Your task to perform on an android device: Show the shopping cart on amazon. Add "logitech g903" to the cart on amazon, then select checkout. Image 0: 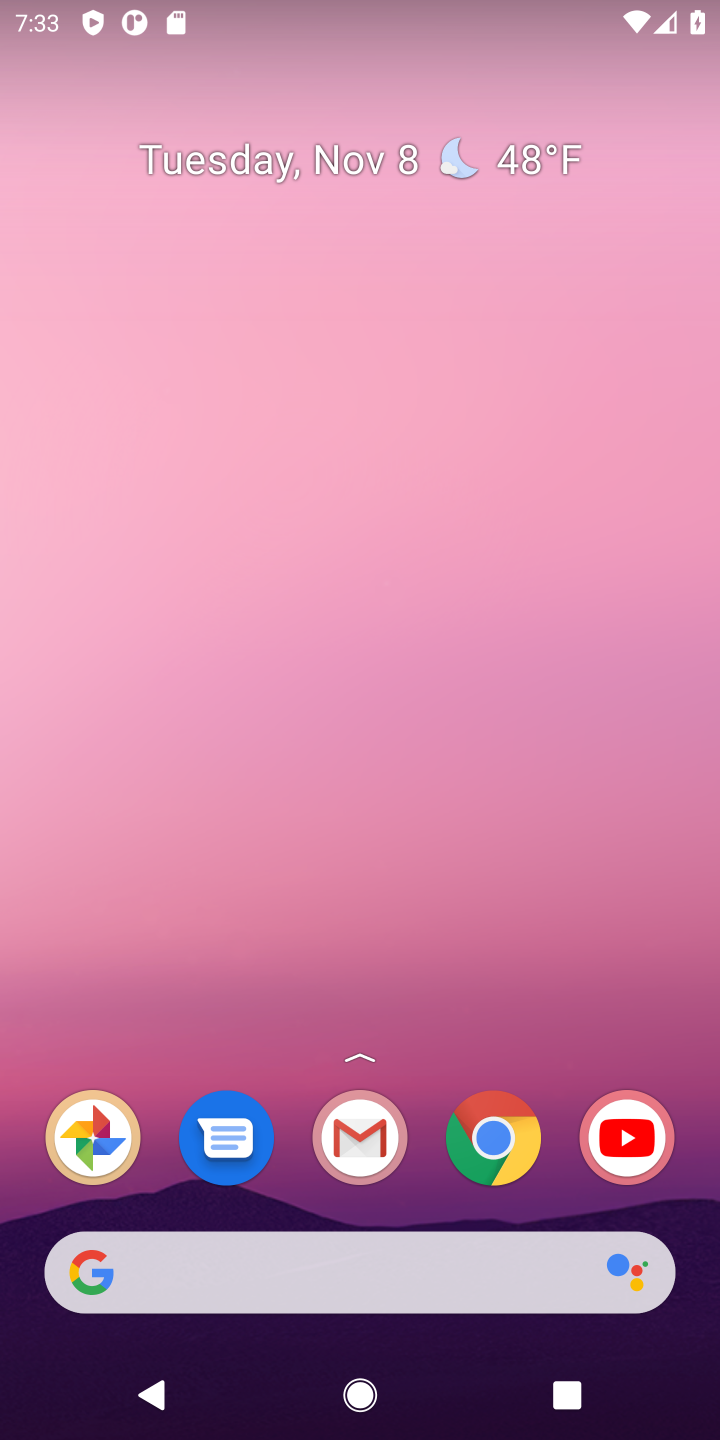
Step 0: click (502, 1151)
Your task to perform on an android device: Show the shopping cart on amazon. Add "logitech g903" to the cart on amazon, then select checkout. Image 1: 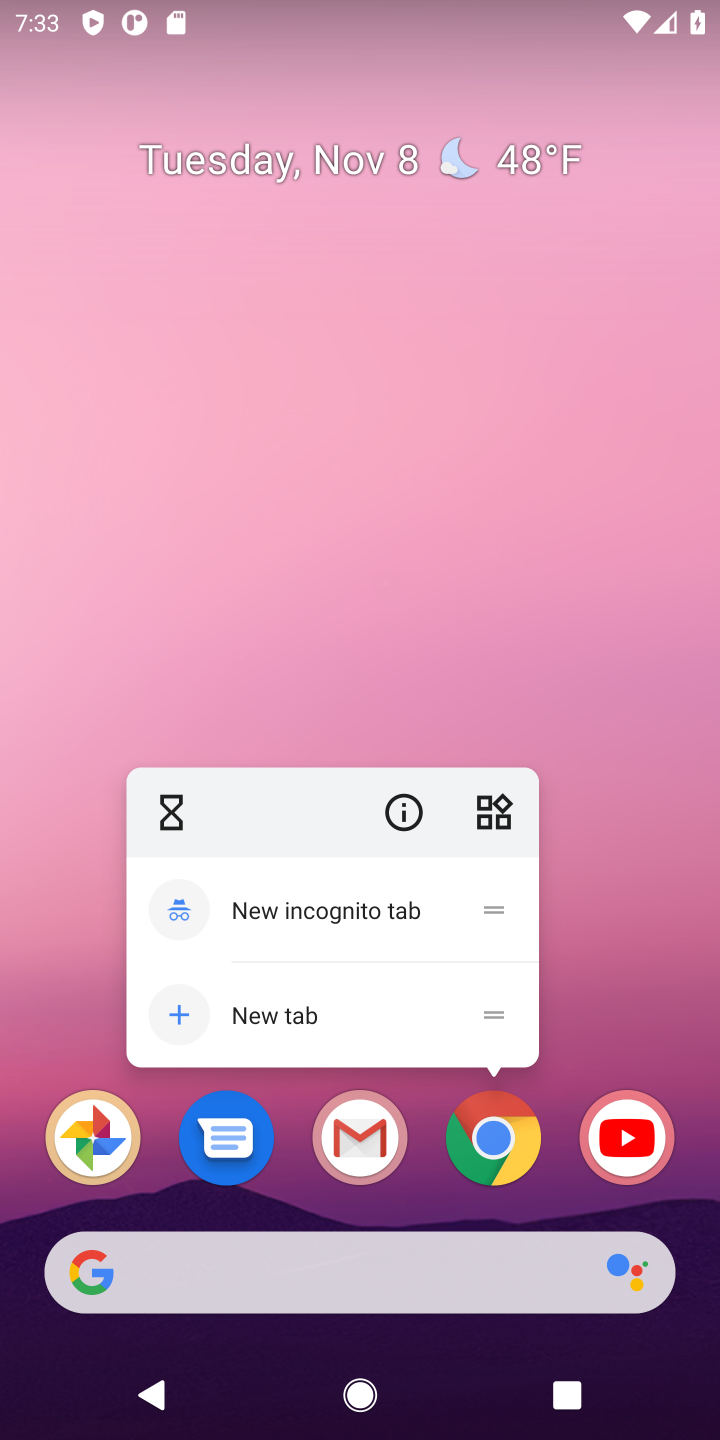
Step 1: click (500, 1136)
Your task to perform on an android device: Show the shopping cart on amazon. Add "logitech g903" to the cart on amazon, then select checkout. Image 2: 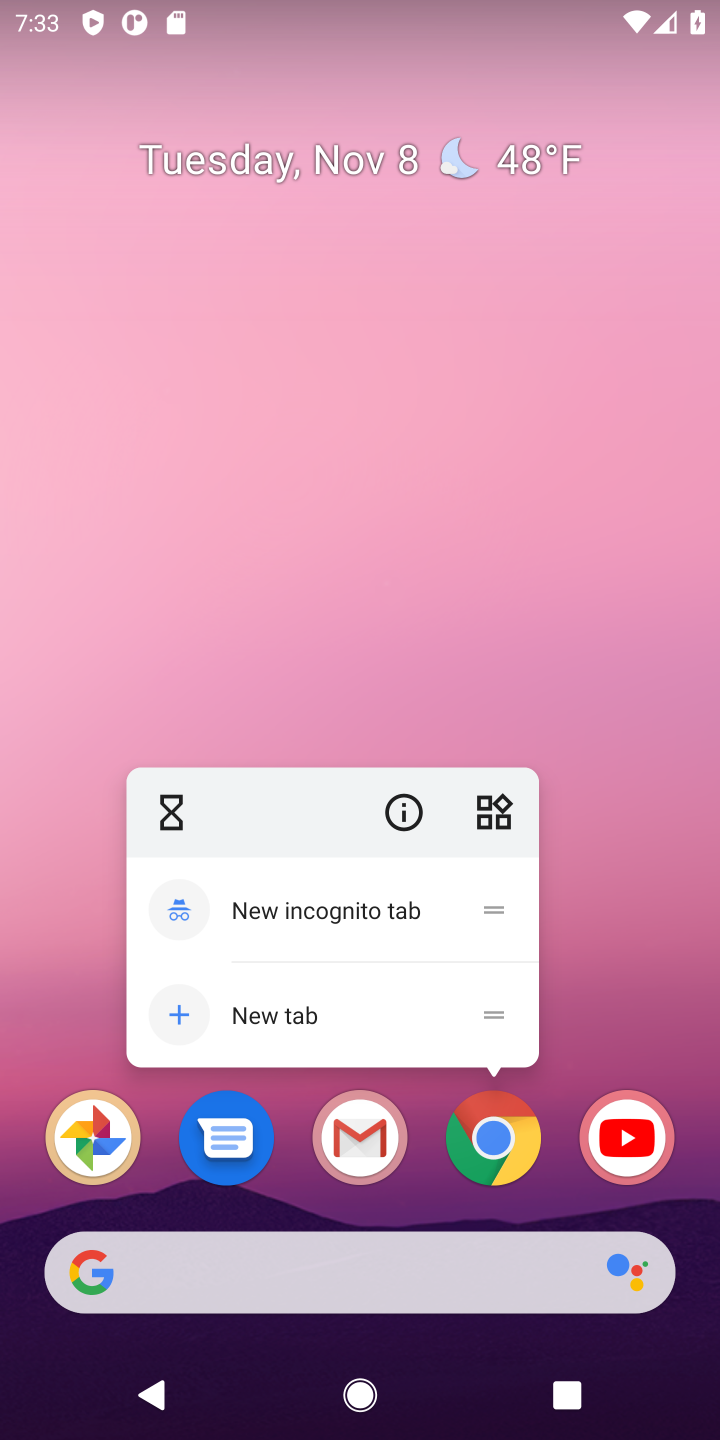
Step 2: click (477, 1141)
Your task to perform on an android device: Show the shopping cart on amazon. Add "logitech g903" to the cart on amazon, then select checkout. Image 3: 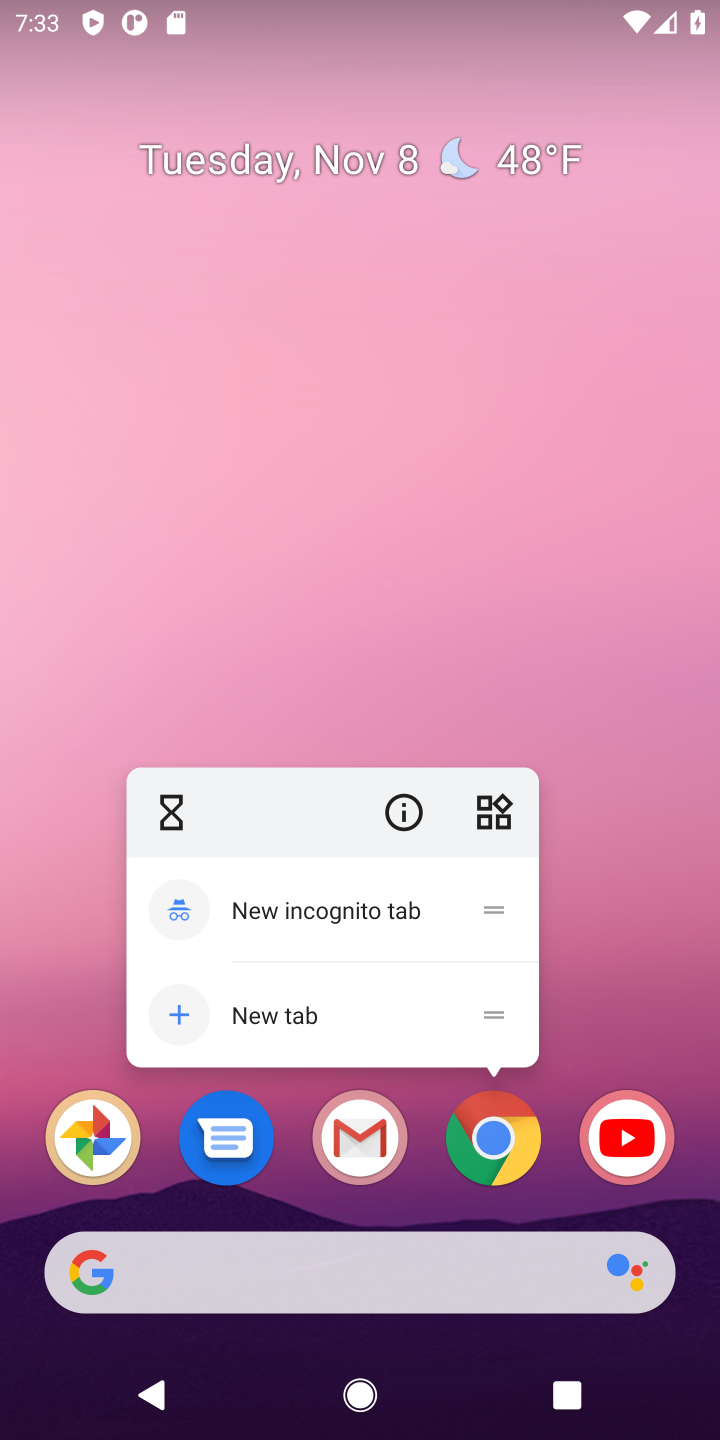
Step 3: click (495, 1141)
Your task to perform on an android device: Show the shopping cart on amazon. Add "logitech g903" to the cart on amazon, then select checkout. Image 4: 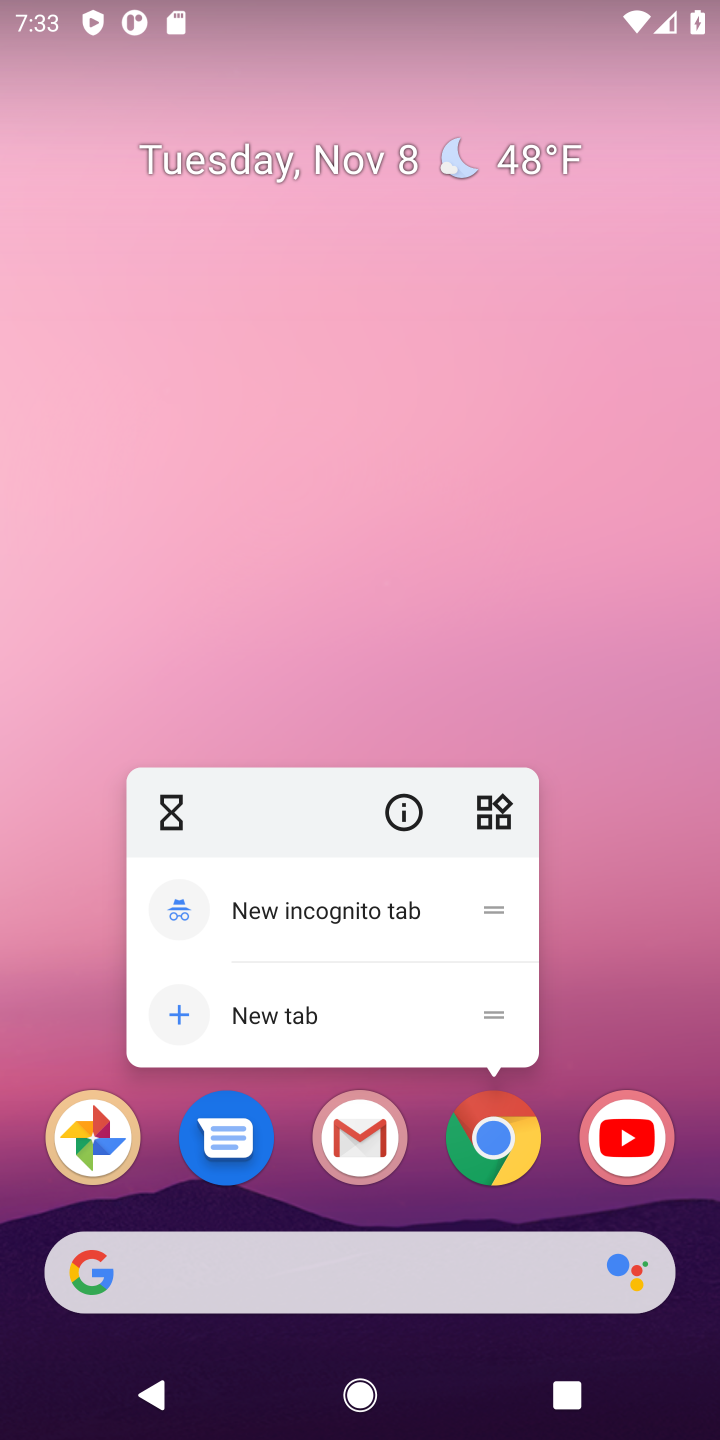
Step 4: click (482, 1143)
Your task to perform on an android device: Show the shopping cart on amazon. Add "logitech g903" to the cart on amazon, then select checkout. Image 5: 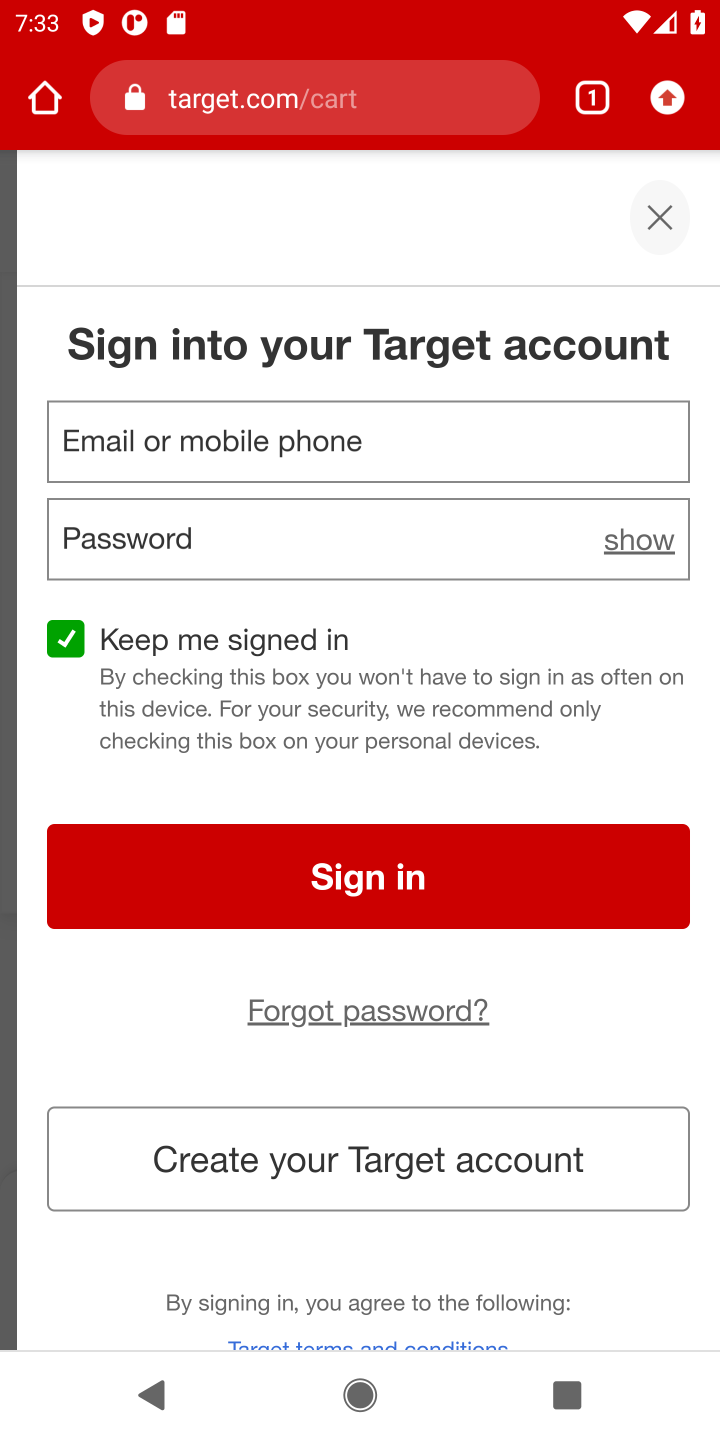
Step 5: click (307, 94)
Your task to perform on an android device: Show the shopping cart on amazon. Add "logitech g903" to the cart on amazon, then select checkout. Image 6: 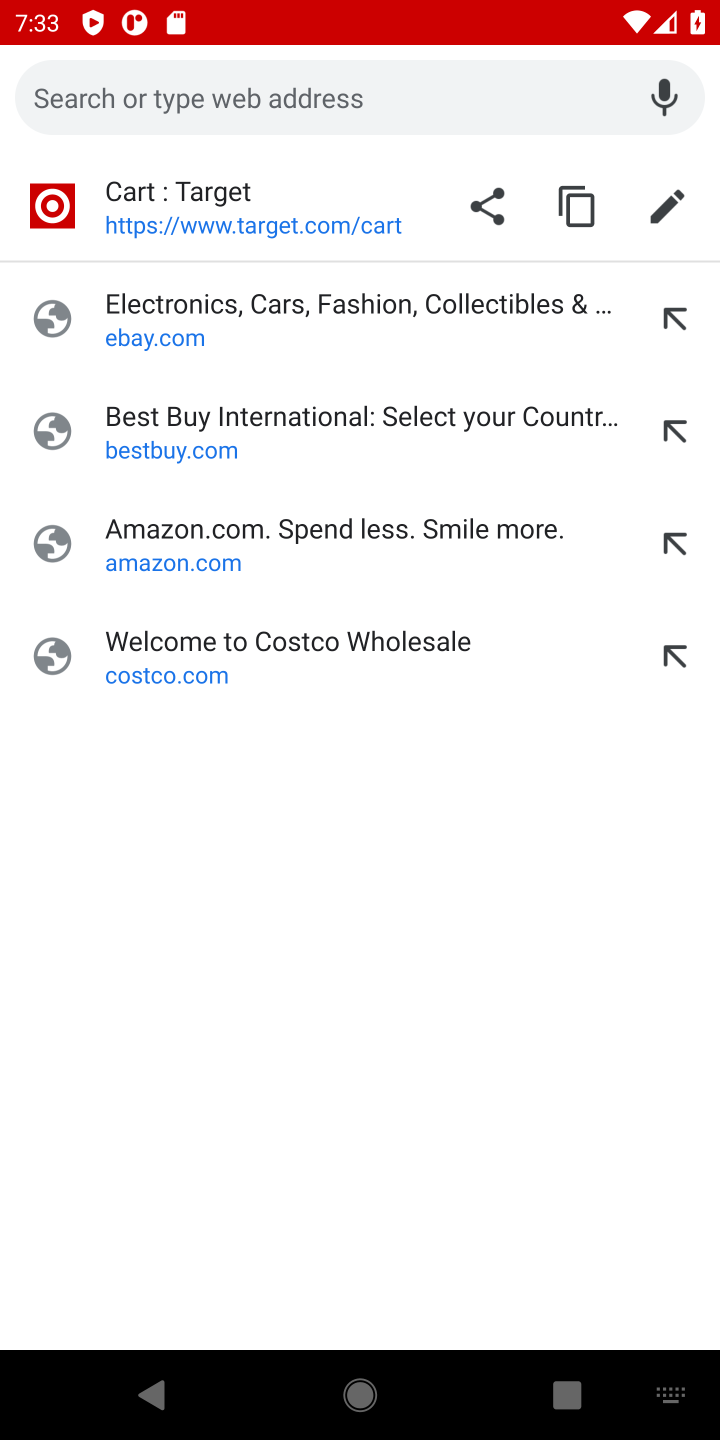
Step 6: click (189, 533)
Your task to perform on an android device: Show the shopping cart on amazon. Add "logitech g903" to the cart on amazon, then select checkout. Image 7: 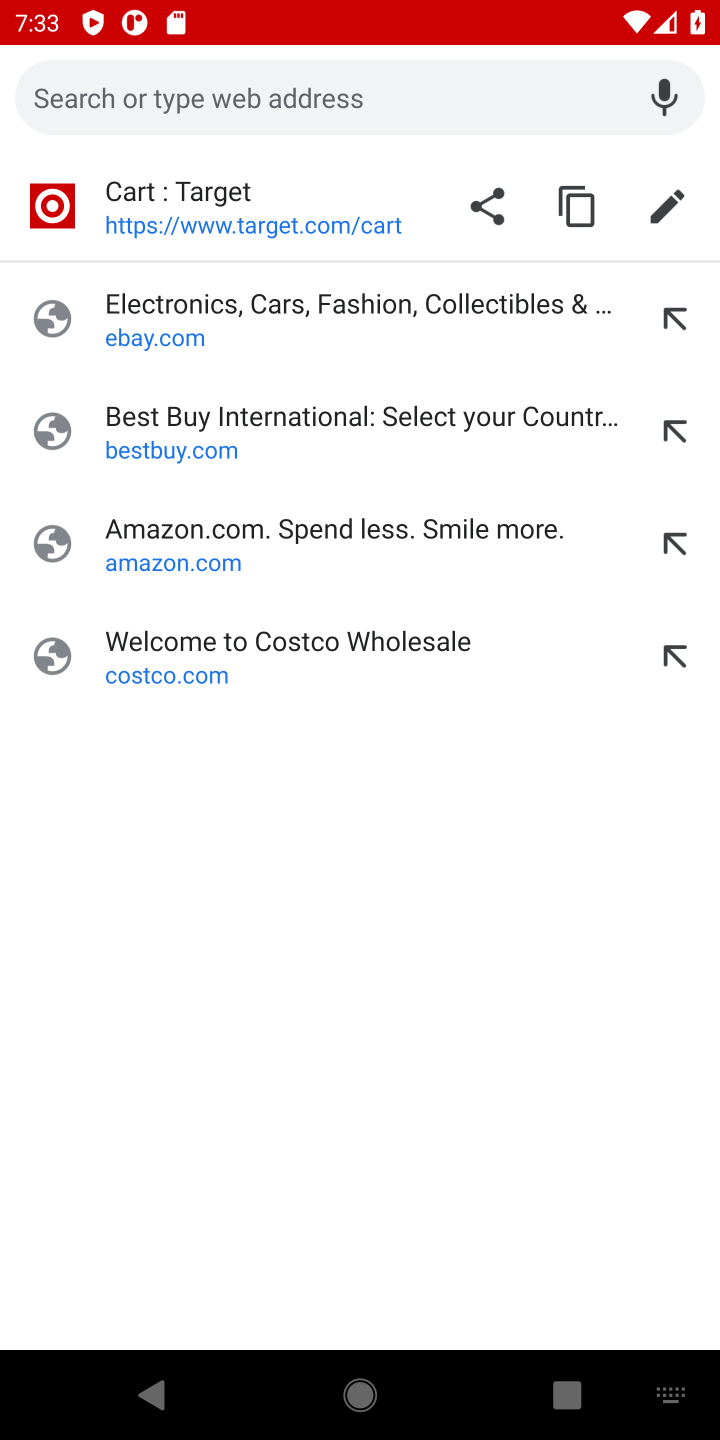
Step 7: click (175, 556)
Your task to perform on an android device: Show the shopping cart on amazon. Add "logitech g903" to the cart on amazon, then select checkout. Image 8: 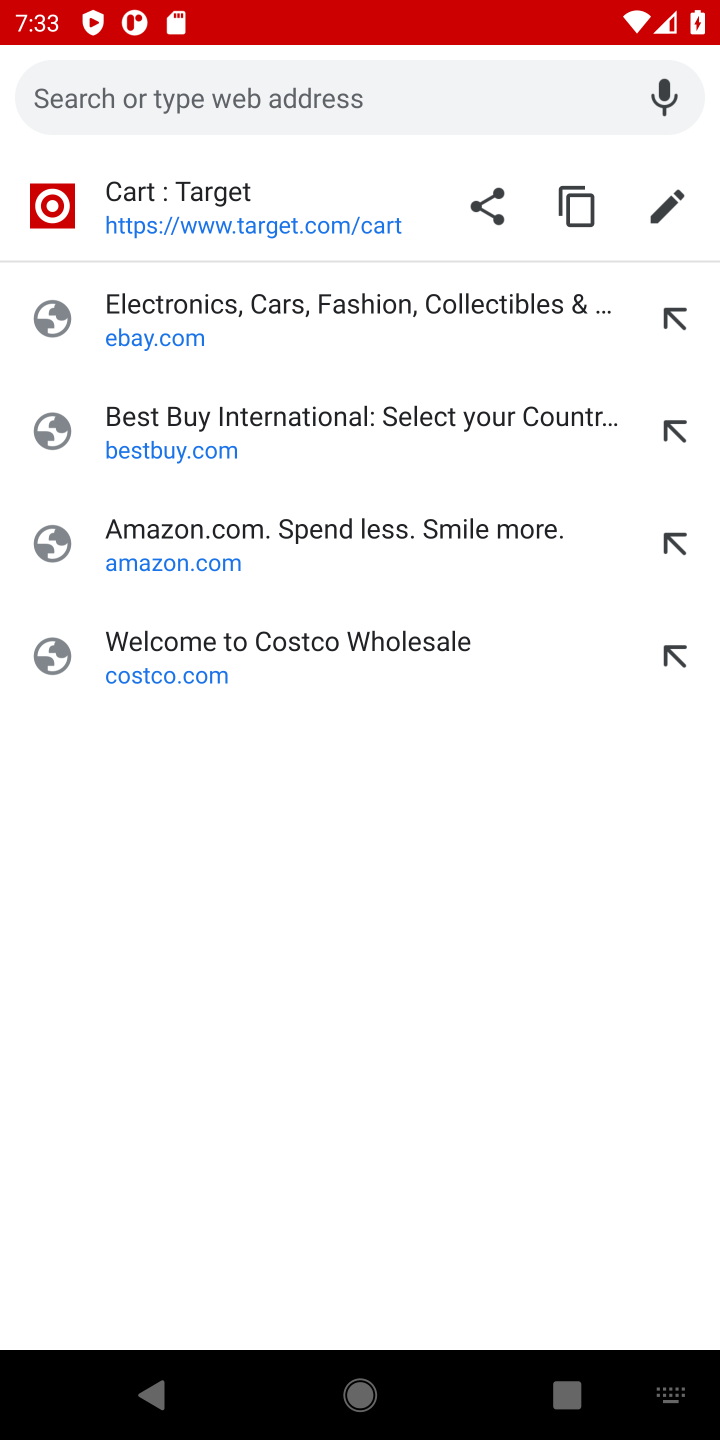
Step 8: click (104, 566)
Your task to perform on an android device: Show the shopping cart on amazon. Add "logitech g903" to the cart on amazon, then select checkout. Image 9: 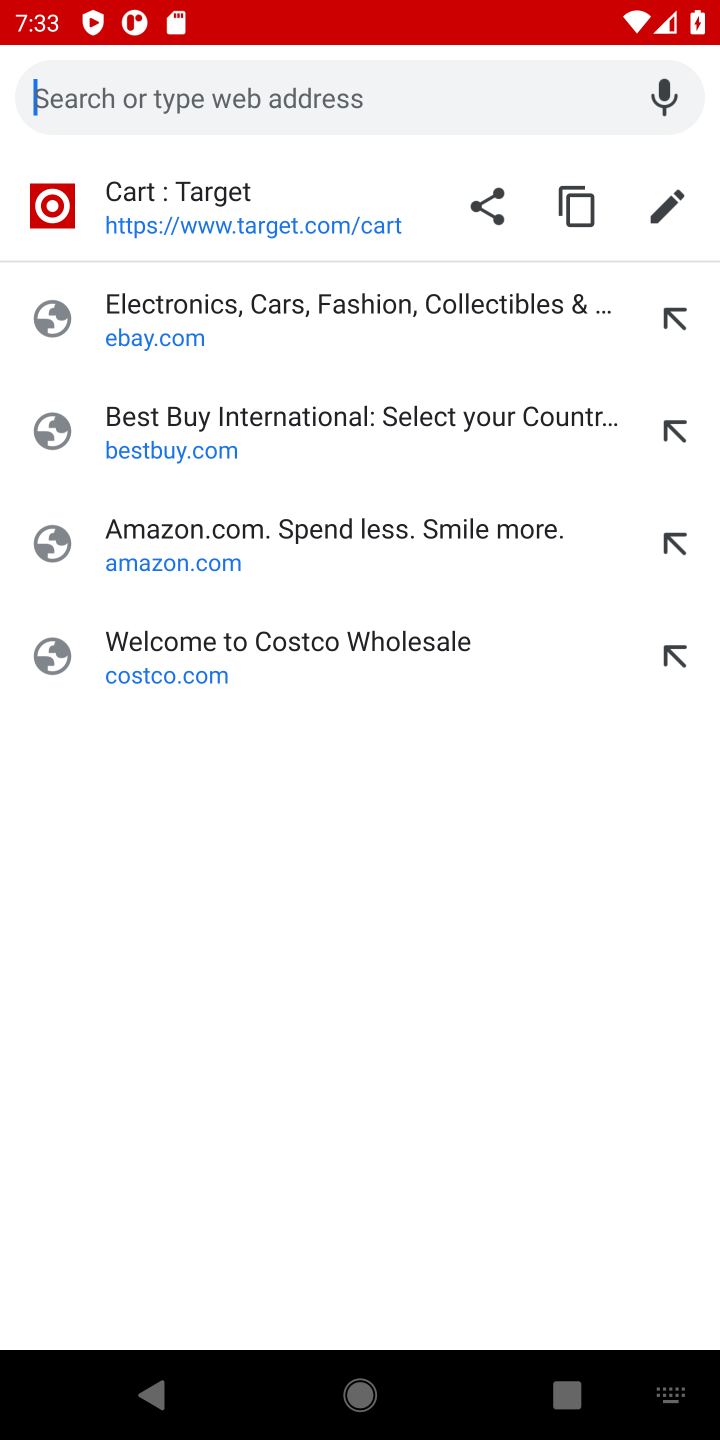
Step 9: click (141, 515)
Your task to perform on an android device: Show the shopping cart on amazon. Add "logitech g903" to the cart on amazon, then select checkout. Image 10: 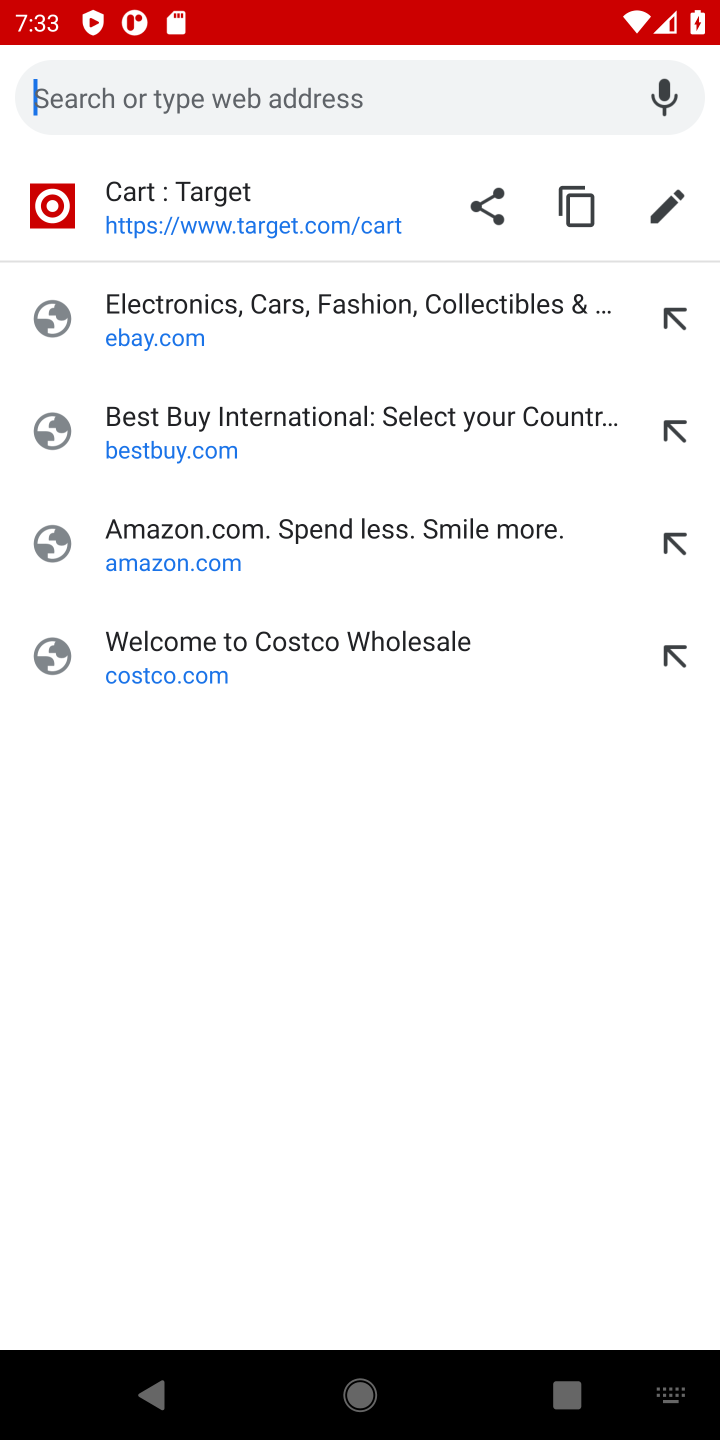
Step 10: click (225, 520)
Your task to perform on an android device: Show the shopping cart on amazon. Add "logitech g903" to the cart on amazon, then select checkout. Image 11: 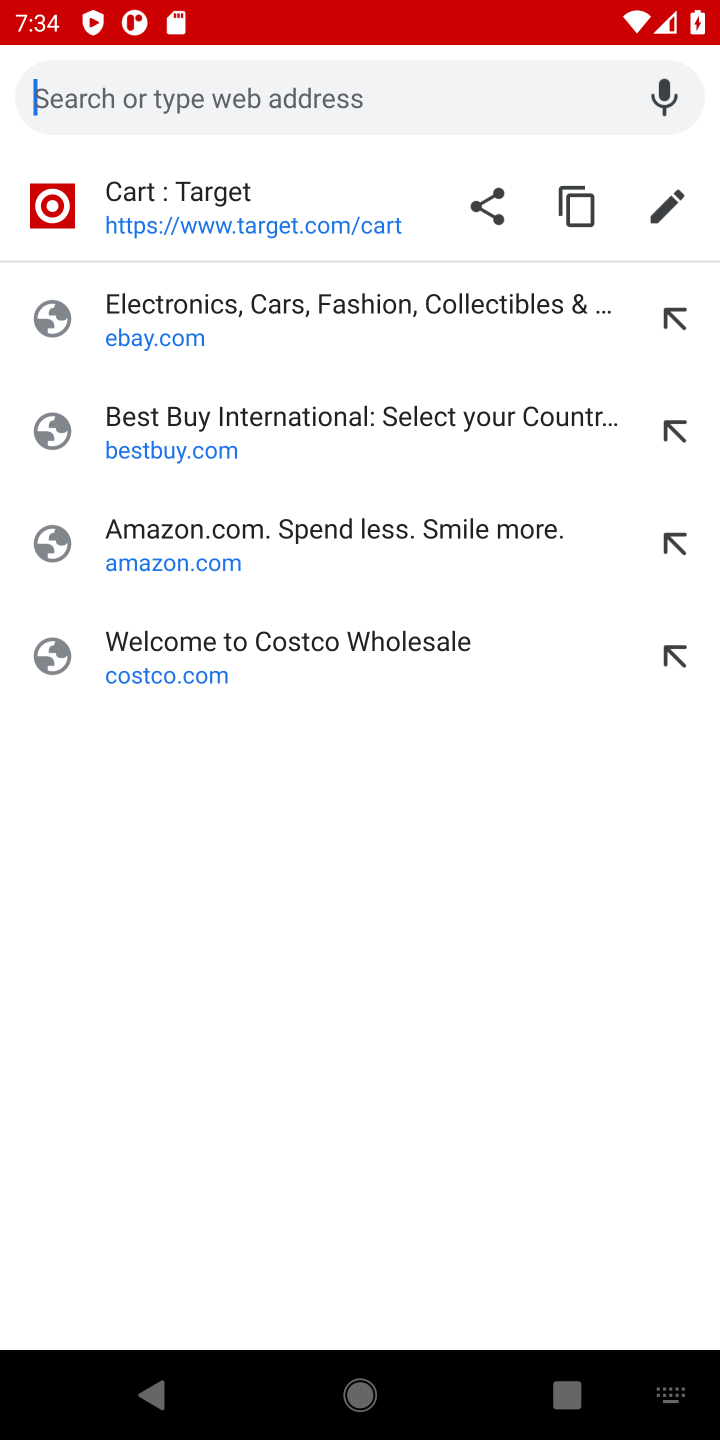
Step 11: click (211, 527)
Your task to perform on an android device: Show the shopping cart on amazon. Add "logitech g903" to the cart on amazon, then select checkout. Image 12: 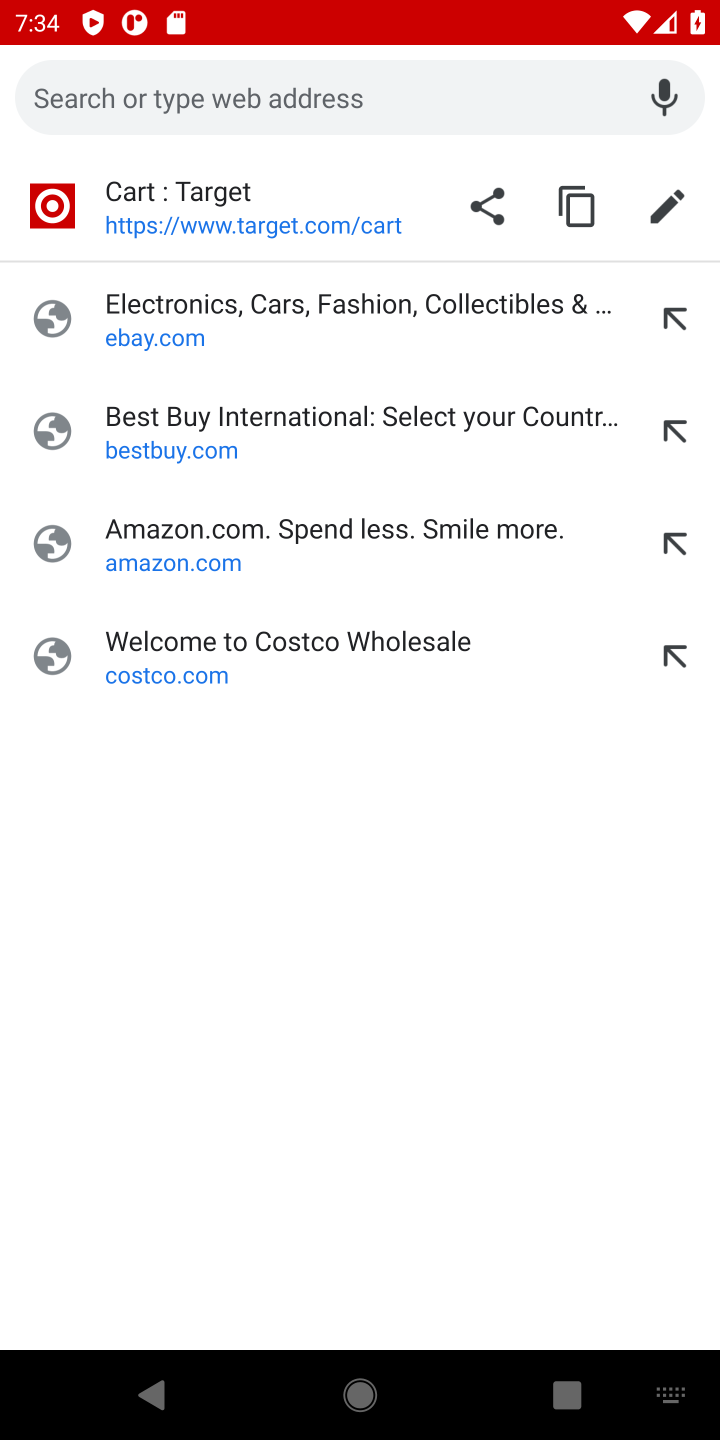
Step 12: click (193, 561)
Your task to perform on an android device: Show the shopping cart on amazon. Add "logitech g903" to the cart on amazon, then select checkout. Image 13: 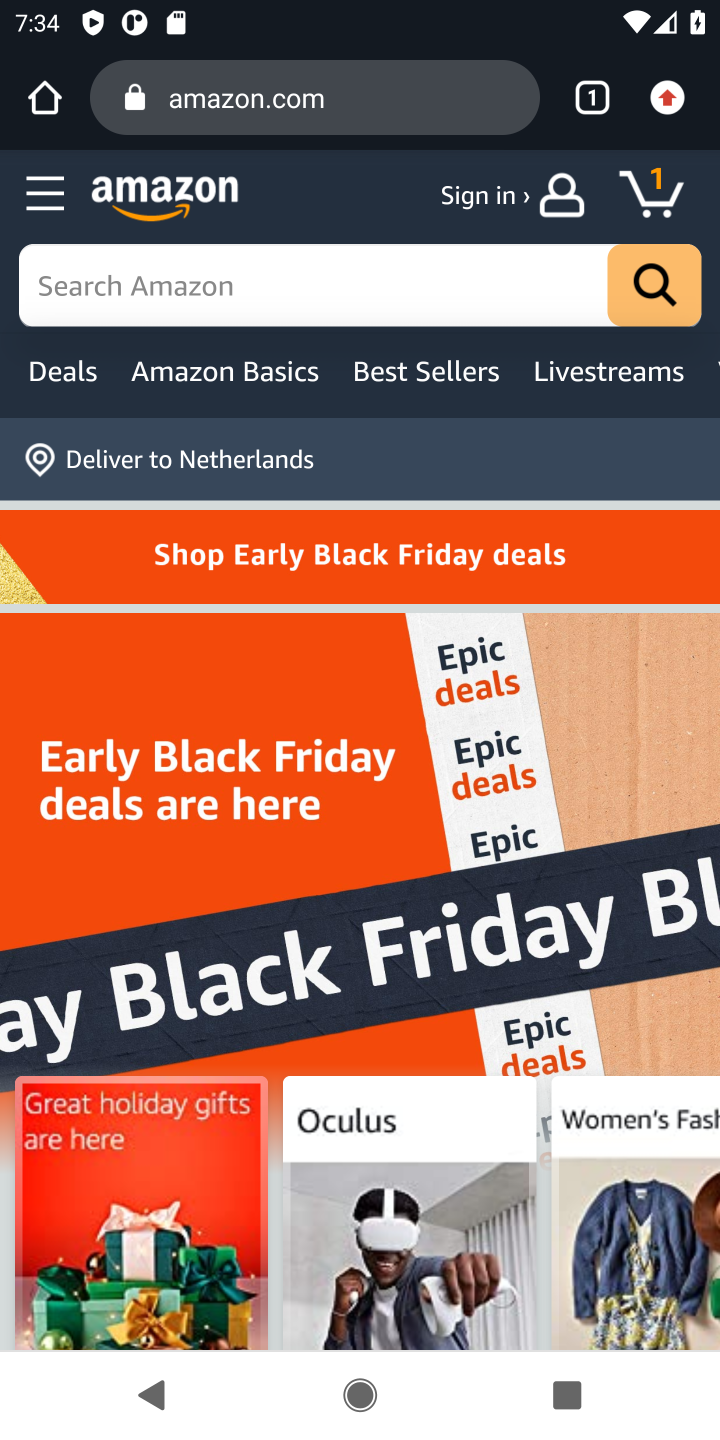
Step 13: click (79, 279)
Your task to perform on an android device: Show the shopping cart on amazon. Add "logitech g903" to the cart on amazon, then select checkout. Image 14: 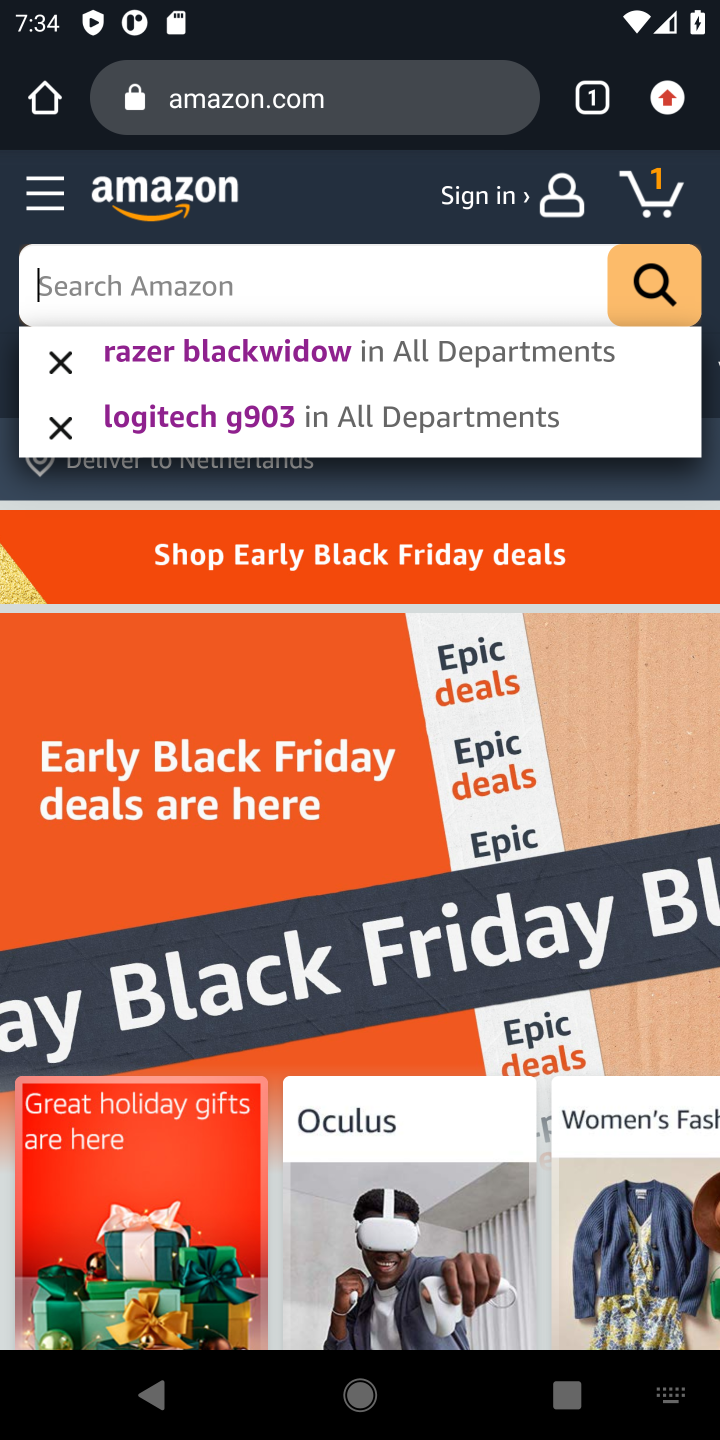
Step 14: type "logitech g903"
Your task to perform on an android device: Show the shopping cart on amazon. Add "logitech g903" to the cart on amazon, then select checkout. Image 15: 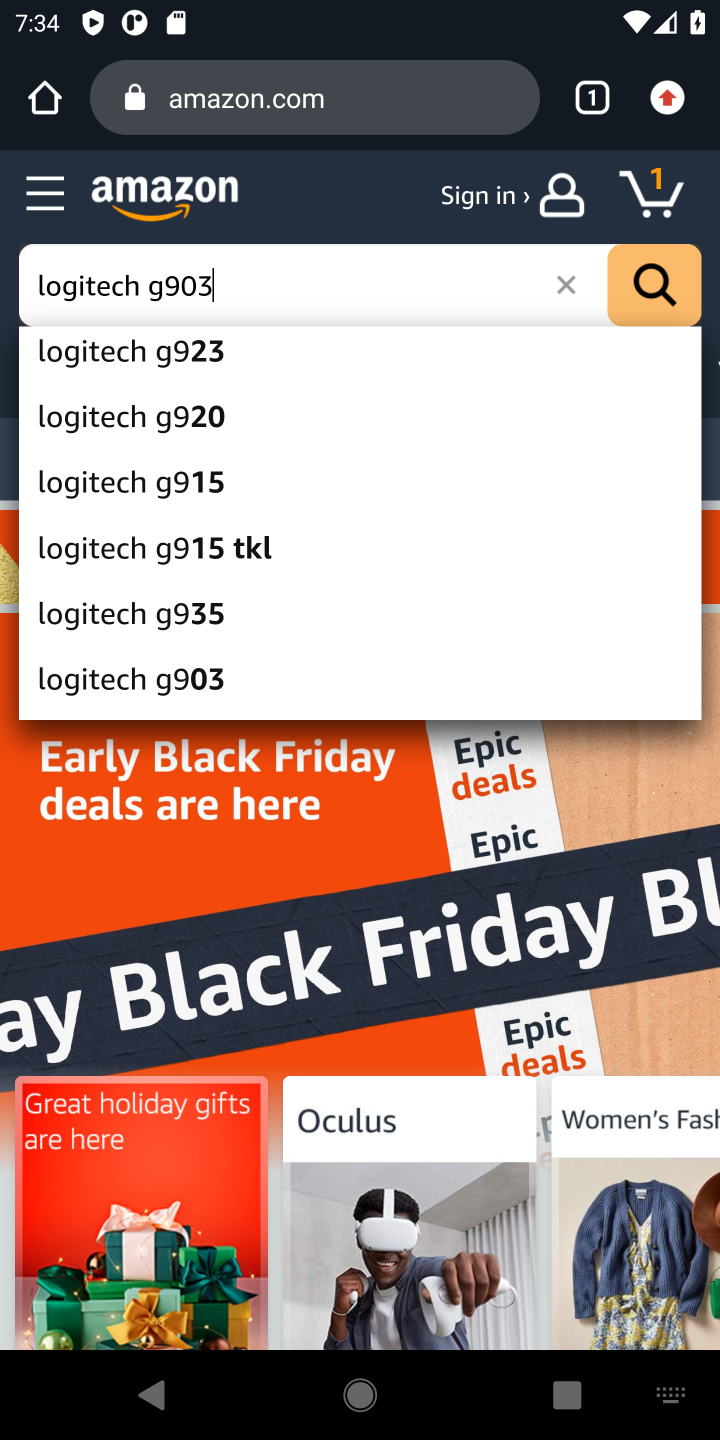
Step 15: press enter
Your task to perform on an android device: Show the shopping cart on amazon. Add "logitech g903" to the cart on amazon, then select checkout. Image 16: 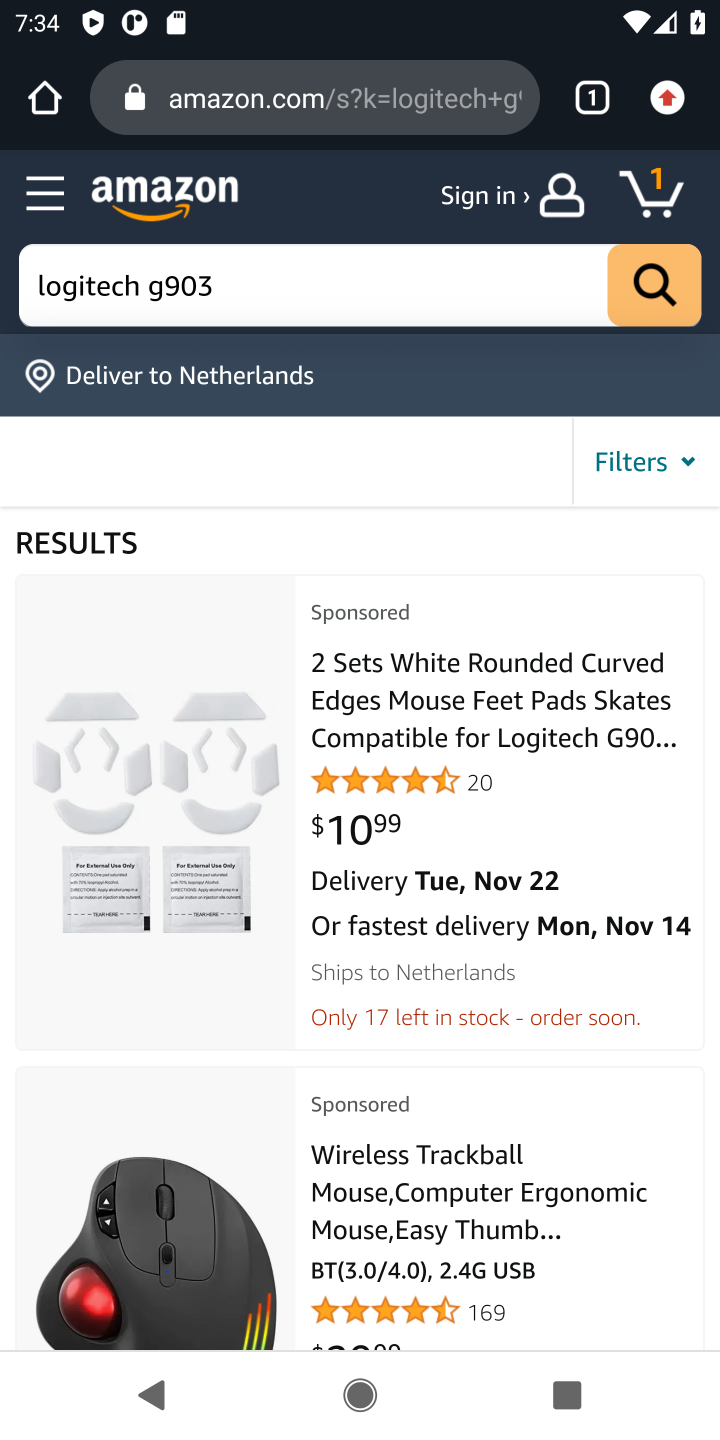
Step 16: drag from (245, 1237) to (437, 596)
Your task to perform on an android device: Show the shopping cart on amazon. Add "logitech g903" to the cart on amazon, then select checkout. Image 17: 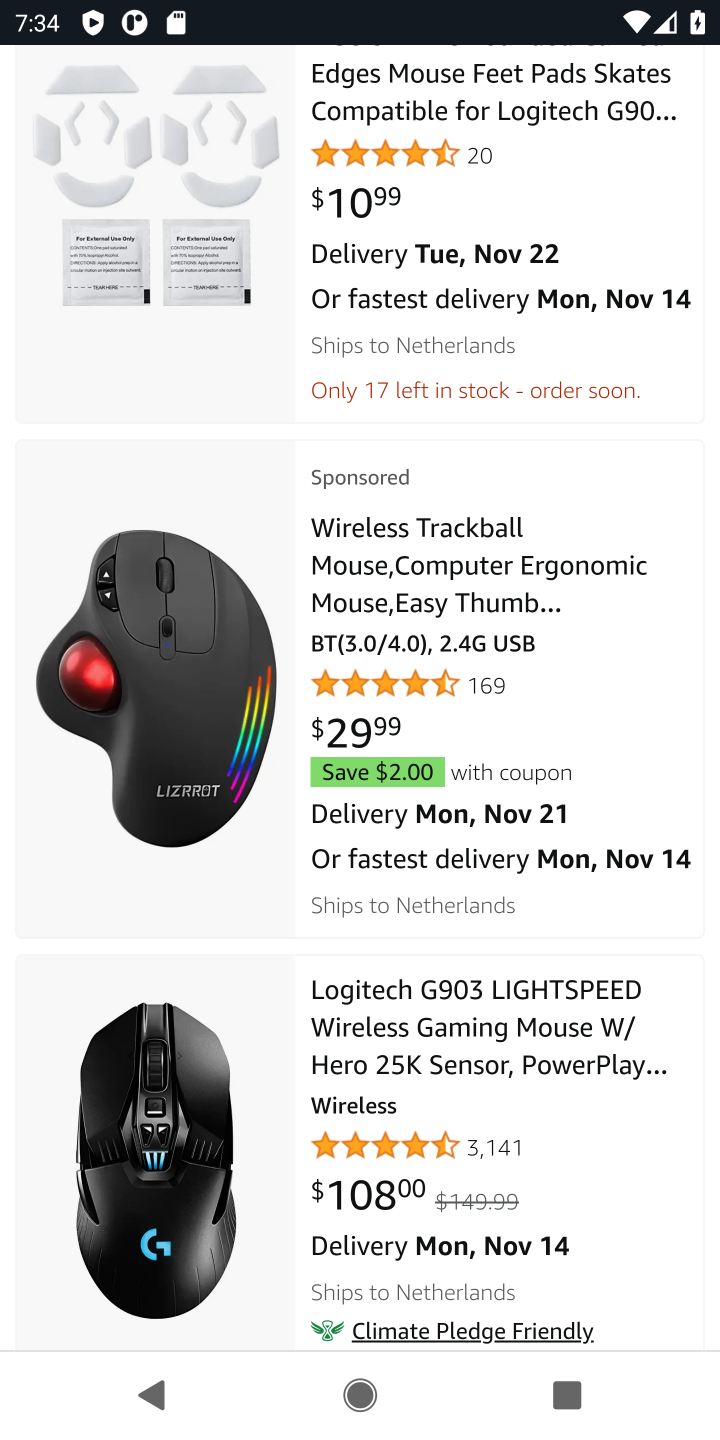
Step 17: click (450, 1037)
Your task to perform on an android device: Show the shopping cart on amazon. Add "logitech g903" to the cart on amazon, then select checkout. Image 18: 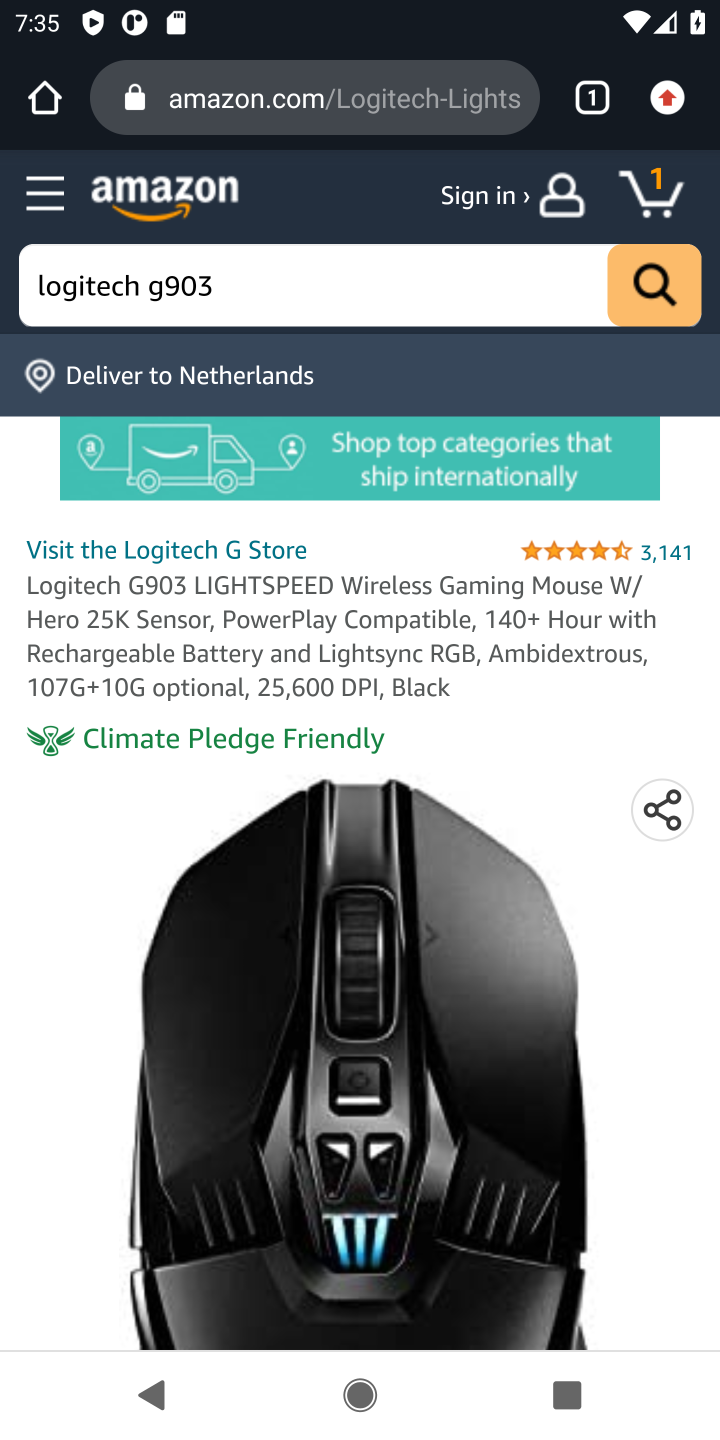
Step 18: drag from (89, 1268) to (443, 422)
Your task to perform on an android device: Show the shopping cart on amazon. Add "logitech g903" to the cart on amazon, then select checkout. Image 19: 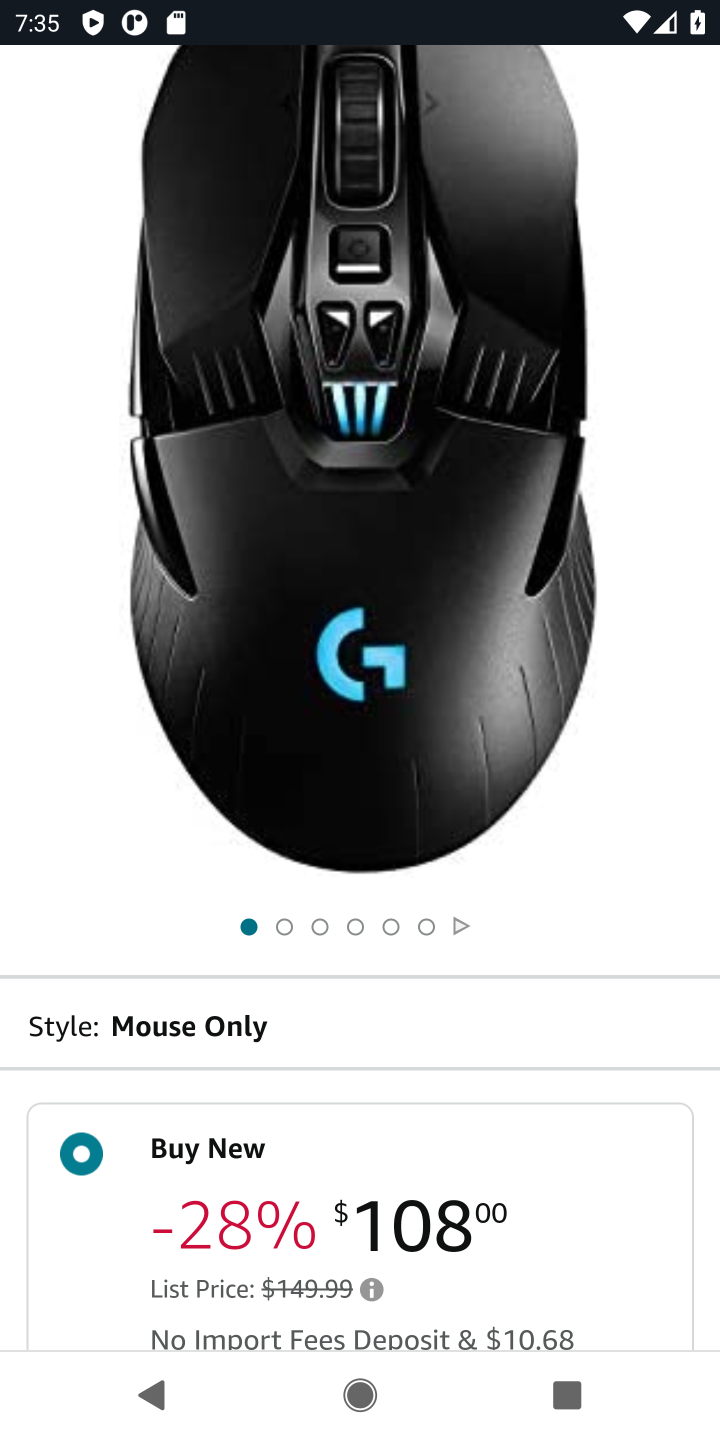
Step 19: drag from (536, 1181) to (720, 283)
Your task to perform on an android device: Show the shopping cart on amazon. Add "logitech g903" to the cart on amazon, then select checkout. Image 20: 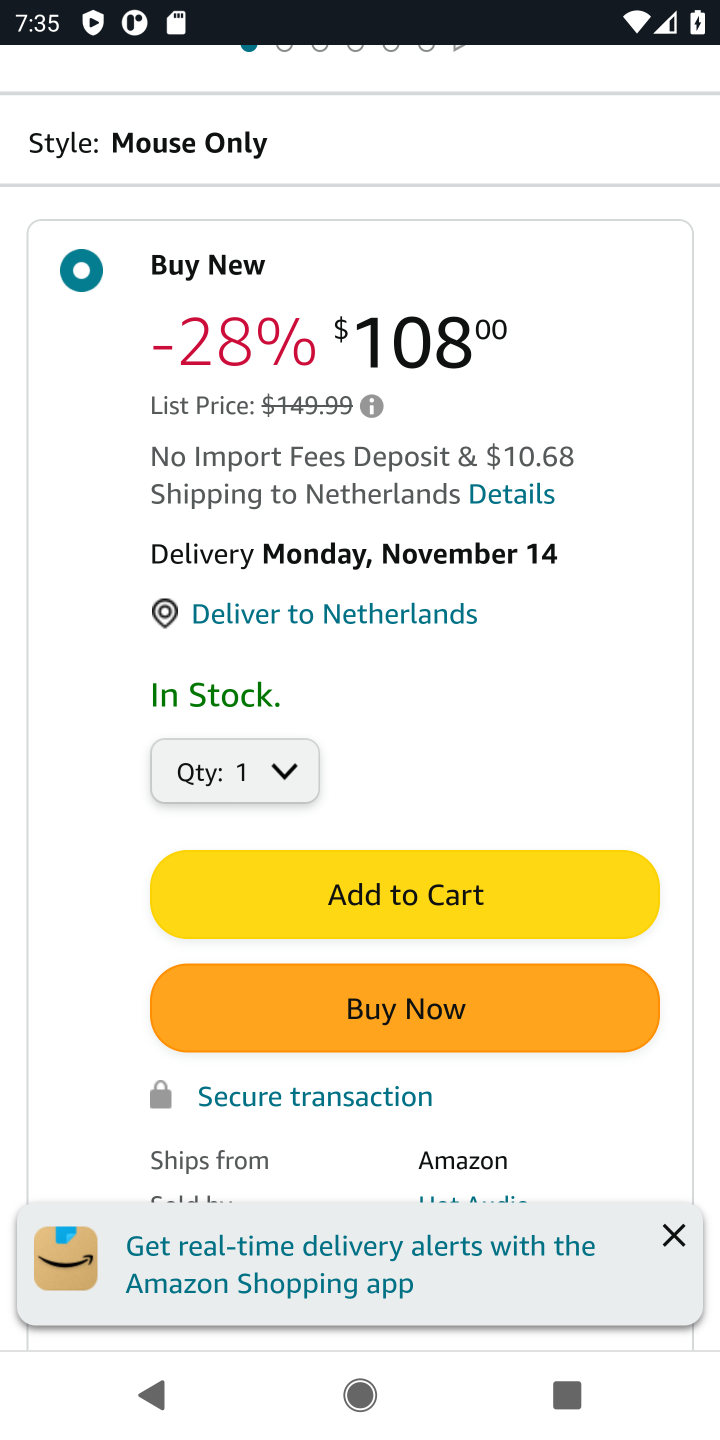
Step 20: click (389, 890)
Your task to perform on an android device: Show the shopping cart on amazon. Add "logitech g903" to the cart on amazon, then select checkout. Image 21: 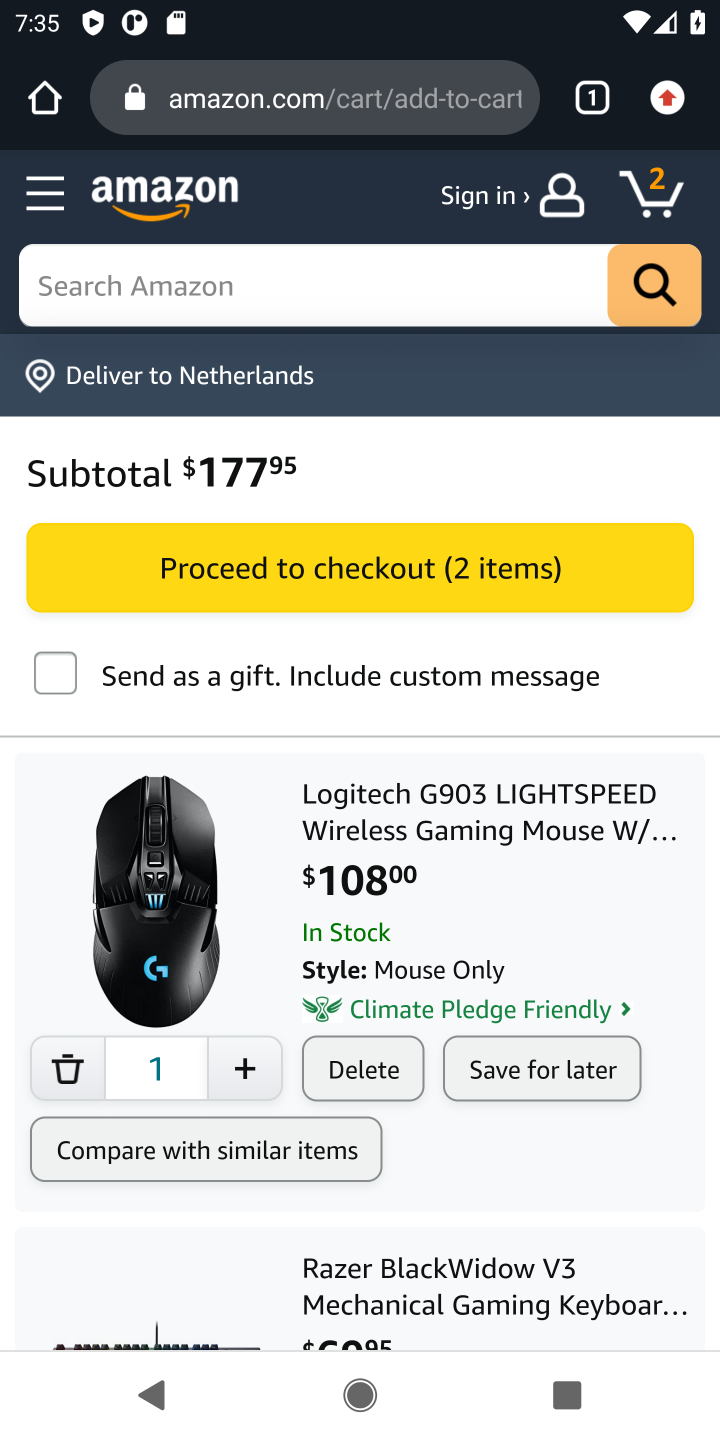
Step 21: click (388, 553)
Your task to perform on an android device: Show the shopping cart on amazon. Add "logitech g903" to the cart on amazon, then select checkout. Image 22: 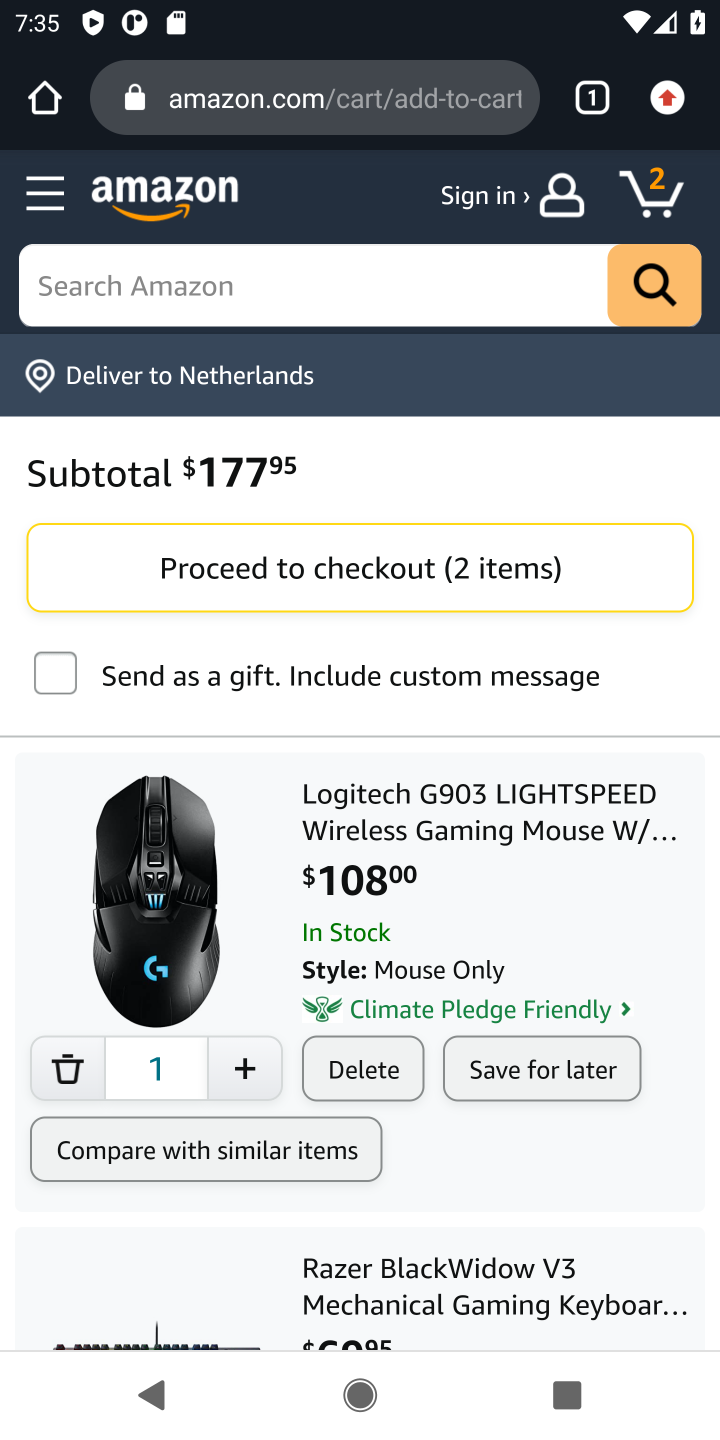
Step 22: click (447, 569)
Your task to perform on an android device: Show the shopping cart on amazon. Add "logitech g903" to the cart on amazon, then select checkout. Image 23: 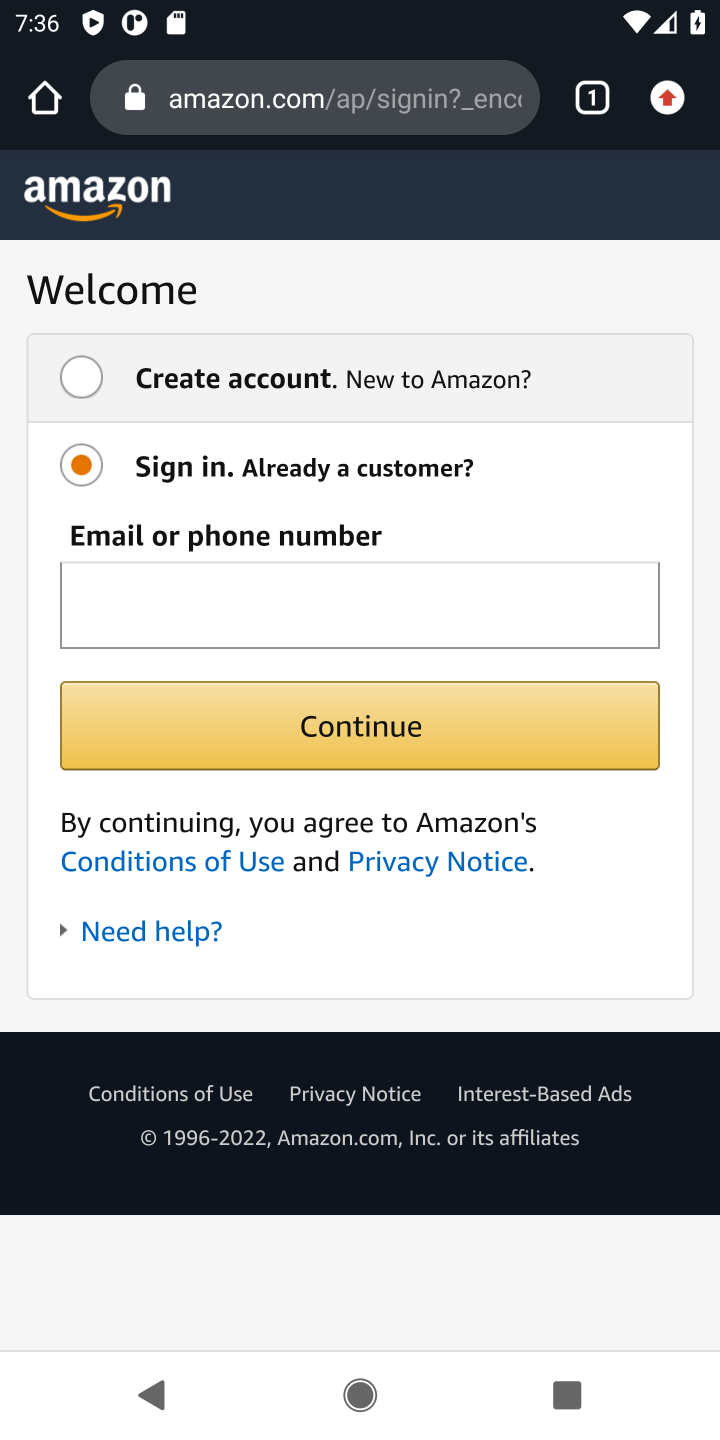
Step 23: task complete